Your task to perform on an android device: Open the Play Movies app and select the watchlist tab. Image 0: 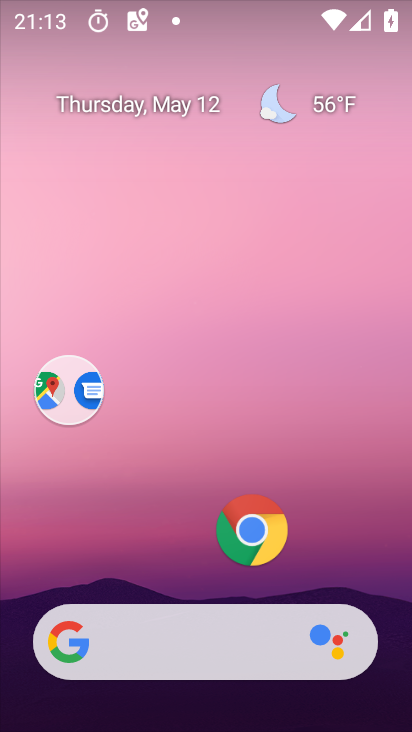
Step 0: drag from (169, 562) to (244, 73)
Your task to perform on an android device: Open the Play Movies app and select the watchlist tab. Image 1: 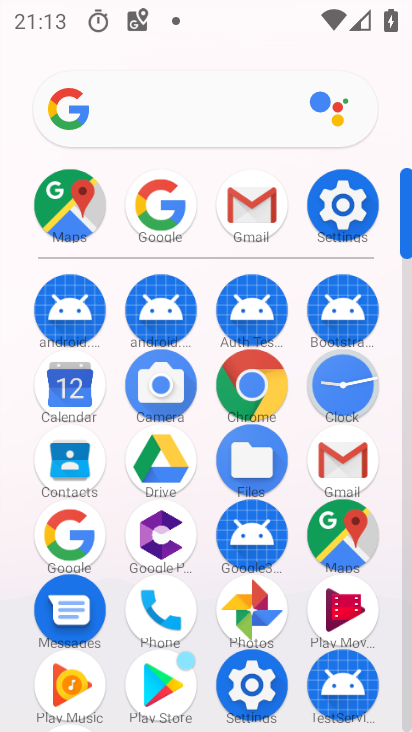
Step 1: click (340, 610)
Your task to perform on an android device: Open the Play Movies app and select the watchlist tab. Image 2: 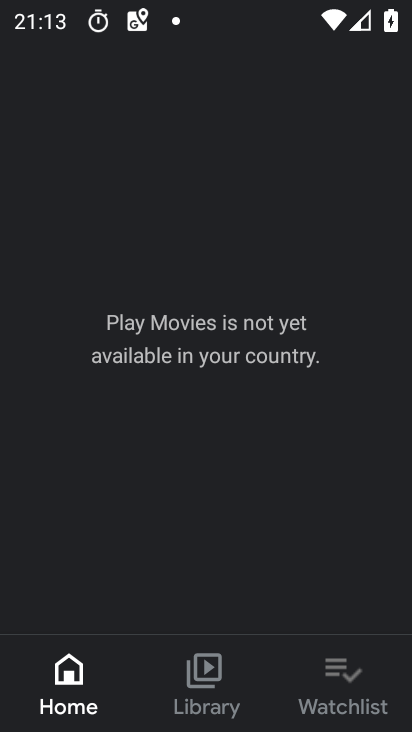
Step 2: click (334, 688)
Your task to perform on an android device: Open the Play Movies app and select the watchlist tab. Image 3: 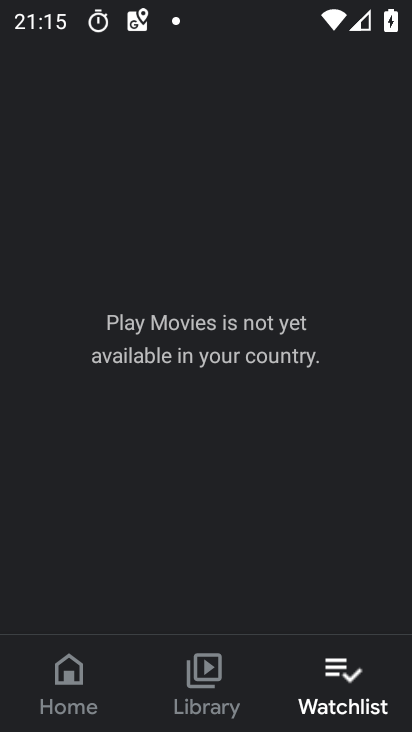
Step 3: task complete